Your task to perform on an android device: turn off airplane mode Image 0: 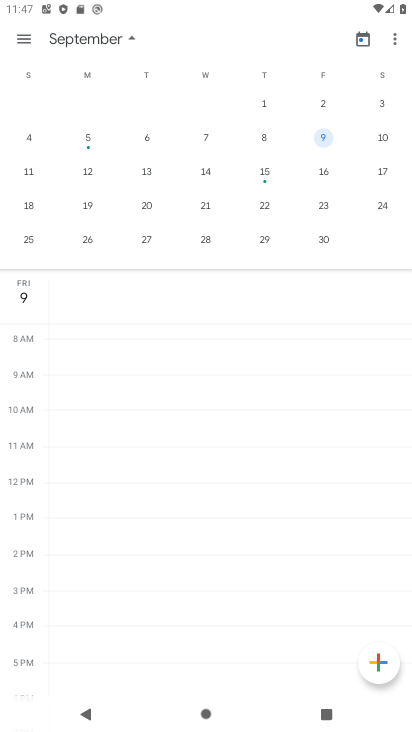
Step 0: drag from (293, 3) to (158, 693)
Your task to perform on an android device: turn off airplane mode Image 1: 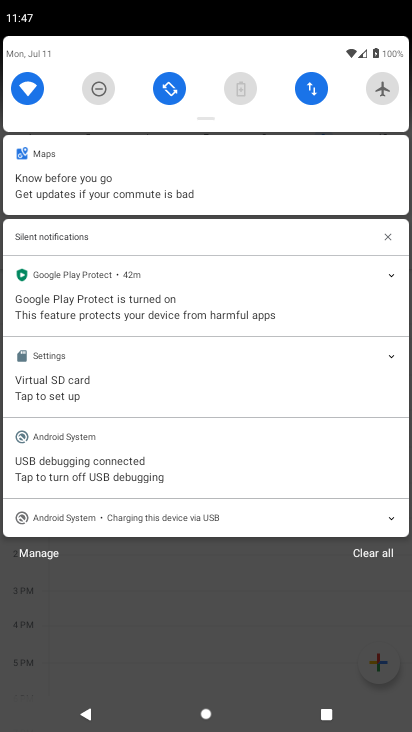
Step 1: task complete